Your task to perform on an android device: turn off sleep mode Image 0: 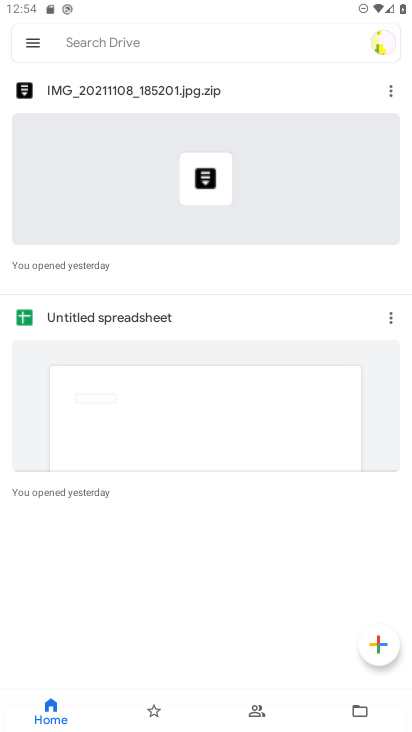
Step 0: press home button
Your task to perform on an android device: turn off sleep mode Image 1: 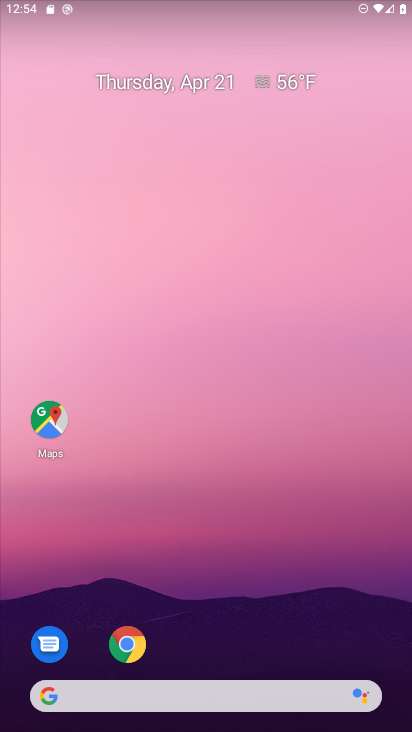
Step 1: drag from (203, 640) to (312, 115)
Your task to perform on an android device: turn off sleep mode Image 2: 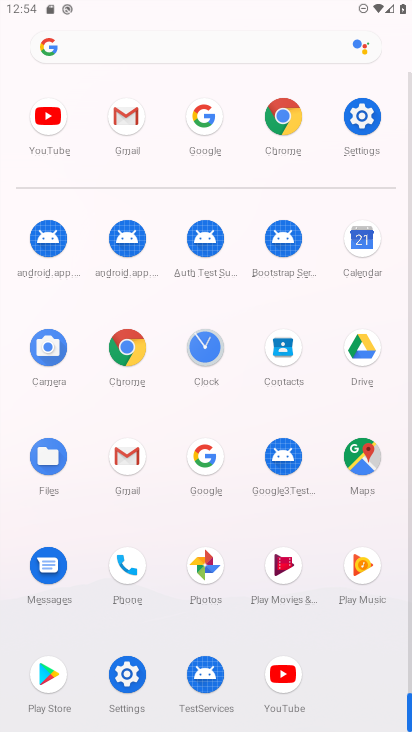
Step 2: click (367, 120)
Your task to perform on an android device: turn off sleep mode Image 3: 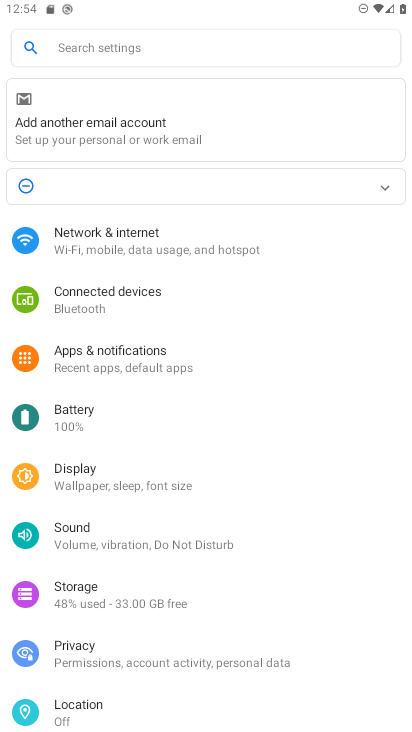
Step 3: drag from (117, 610) to (163, 232)
Your task to perform on an android device: turn off sleep mode Image 4: 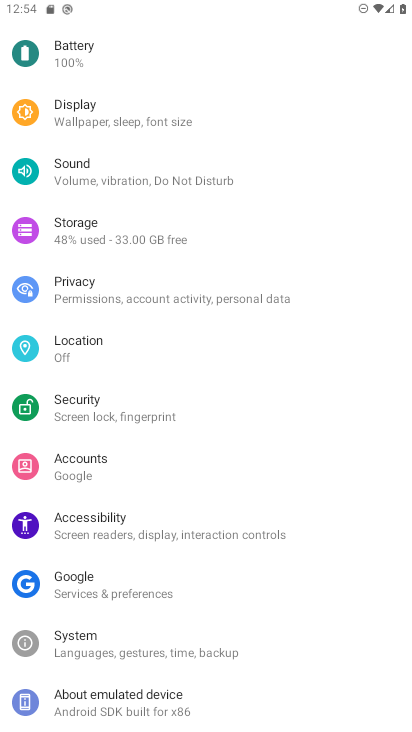
Step 4: click (115, 128)
Your task to perform on an android device: turn off sleep mode Image 5: 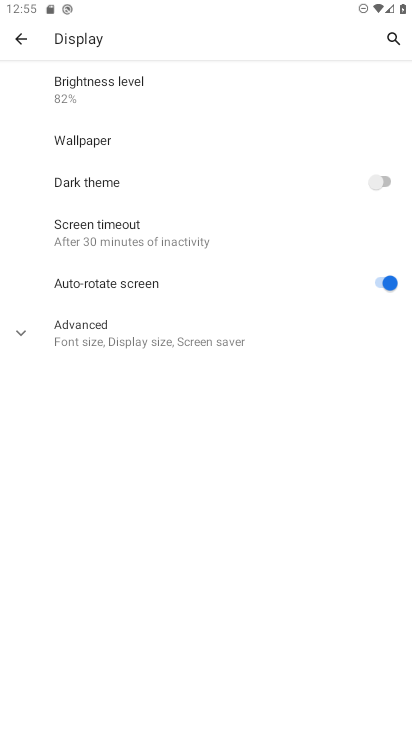
Step 5: task complete